Your task to perform on an android device: Do I have any events today? Image 0: 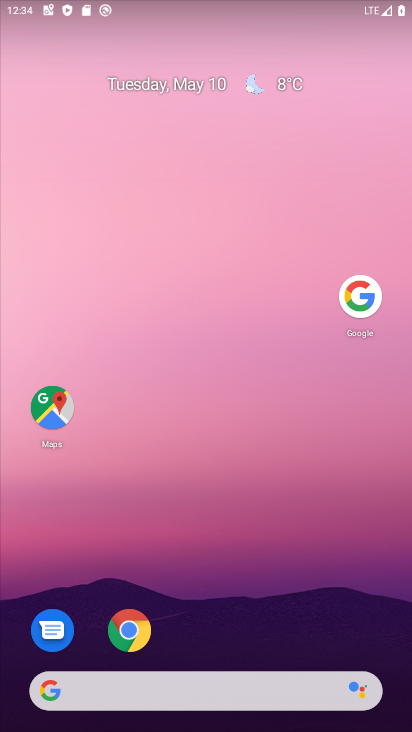
Step 0: press home button
Your task to perform on an android device: Do I have any events today? Image 1: 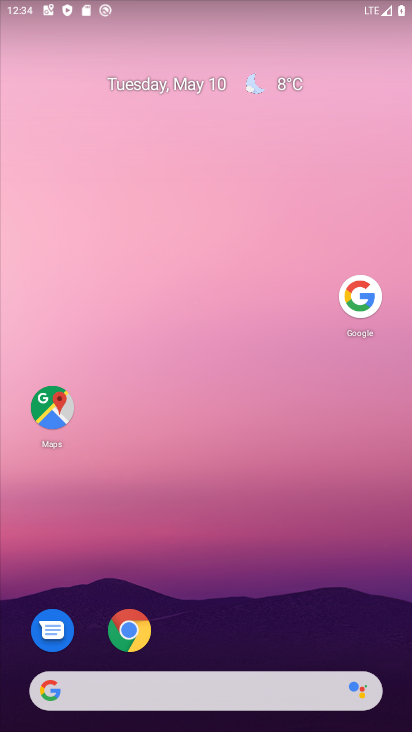
Step 1: drag from (227, 687) to (348, 176)
Your task to perform on an android device: Do I have any events today? Image 2: 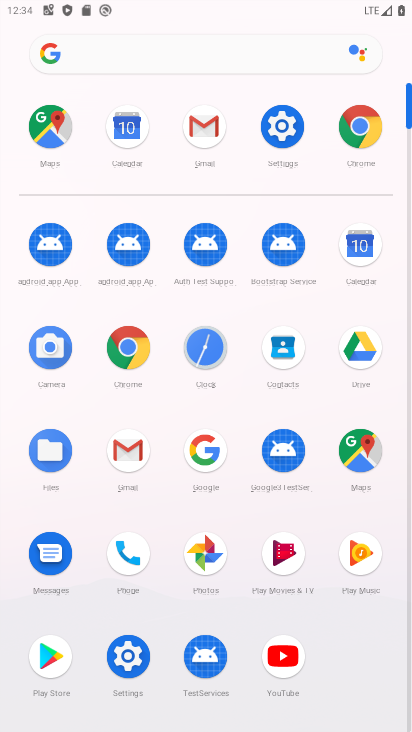
Step 2: click (359, 253)
Your task to perform on an android device: Do I have any events today? Image 3: 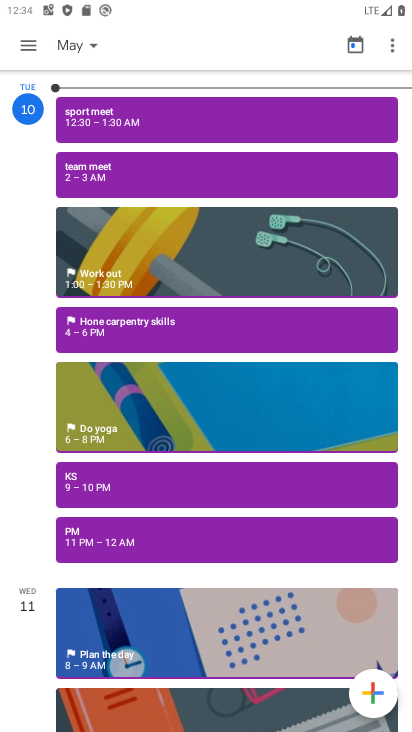
Step 3: click (131, 113)
Your task to perform on an android device: Do I have any events today? Image 4: 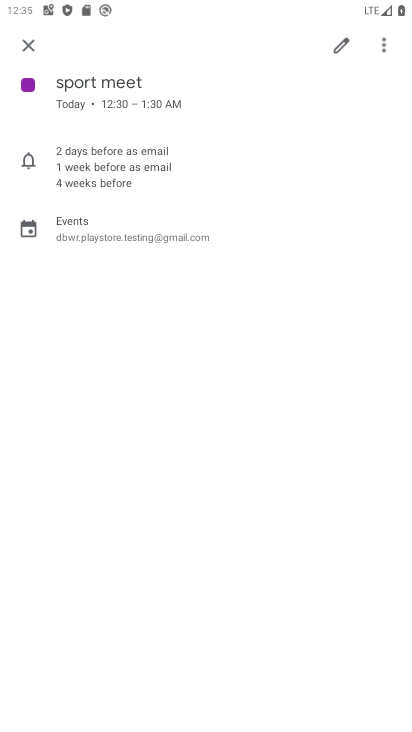
Step 4: task complete